Your task to perform on an android device: Search for sushi restaurants on Maps Image 0: 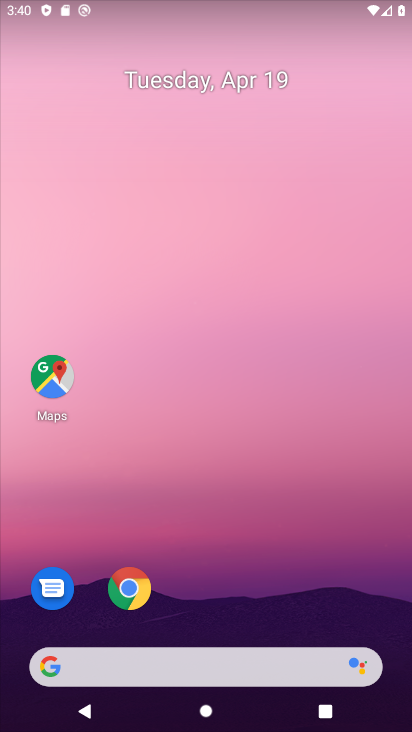
Step 0: click (53, 382)
Your task to perform on an android device: Search for sushi restaurants on Maps Image 1: 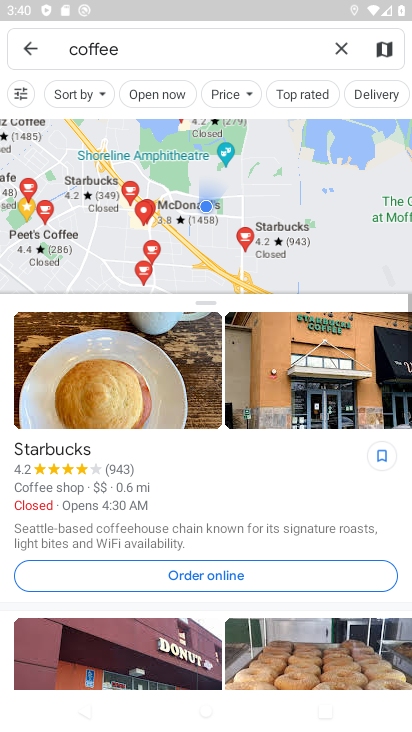
Step 1: click (338, 51)
Your task to perform on an android device: Search for sushi restaurants on Maps Image 2: 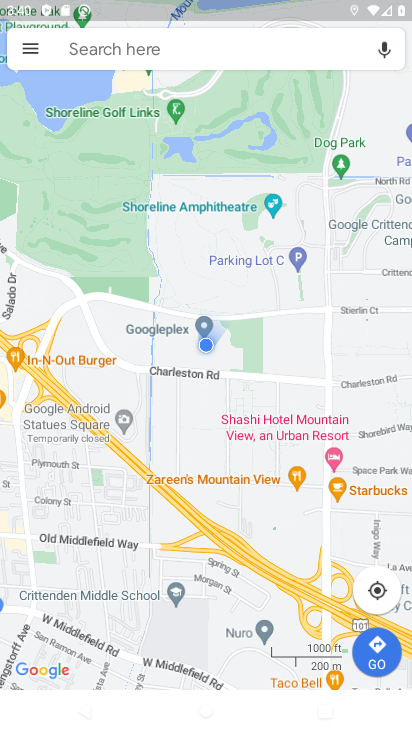
Step 2: click (167, 56)
Your task to perform on an android device: Search for sushi restaurants on Maps Image 3: 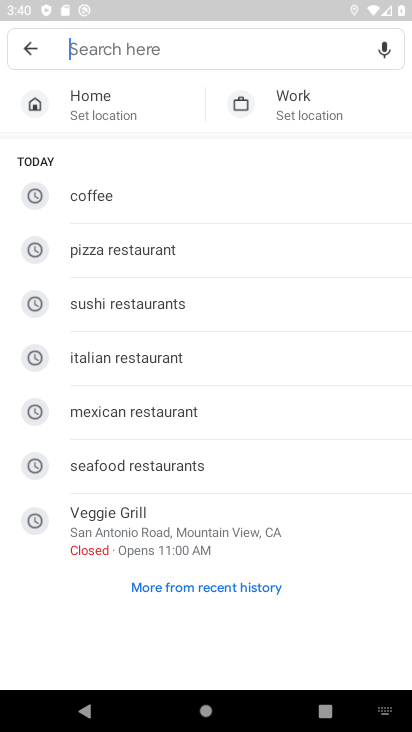
Step 3: click (167, 305)
Your task to perform on an android device: Search for sushi restaurants on Maps Image 4: 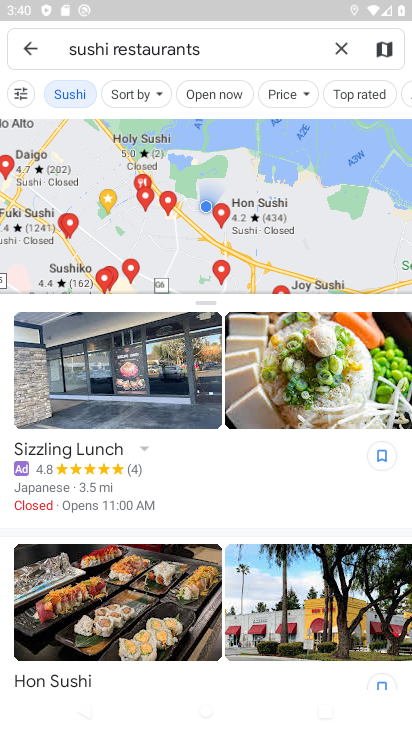
Step 4: task complete